Your task to perform on an android device: Open the web browser Image 0: 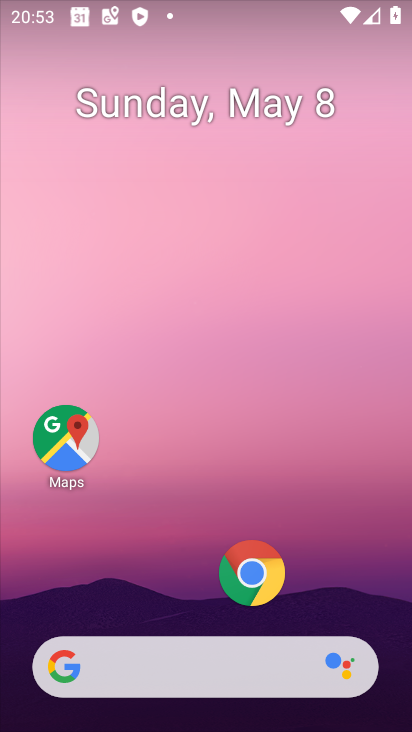
Step 0: click (257, 568)
Your task to perform on an android device: Open the web browser Image 1: 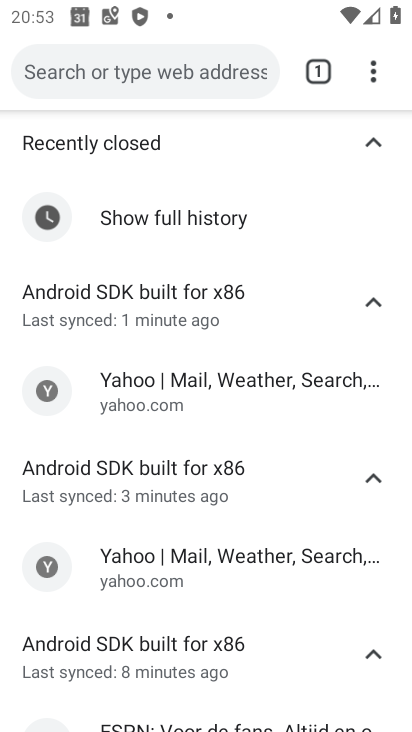
Step 1: click (173, 65)
Your task to perform on an android device: Open the web browser Image 2: 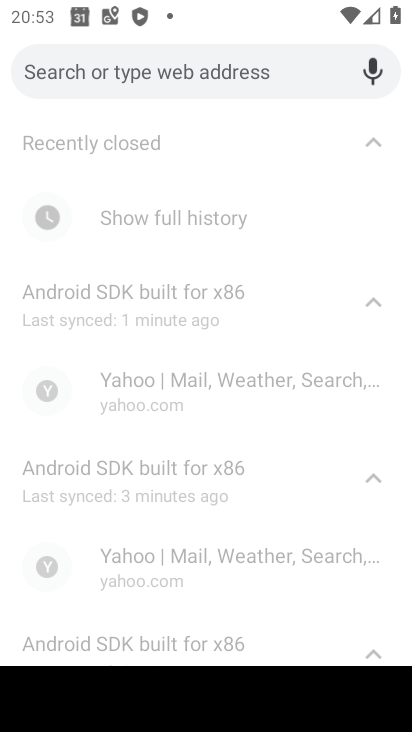
Step 2: task complete